Your task to perform on an android device: When is my next appointment? Image 0: 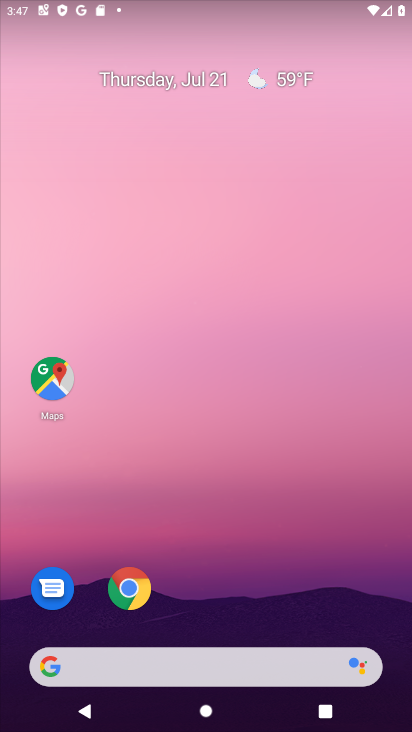
Step 0: drag from (231, 728) to (231, 268)
Your task to perform on an android device: When is my next appointment? Image 1: 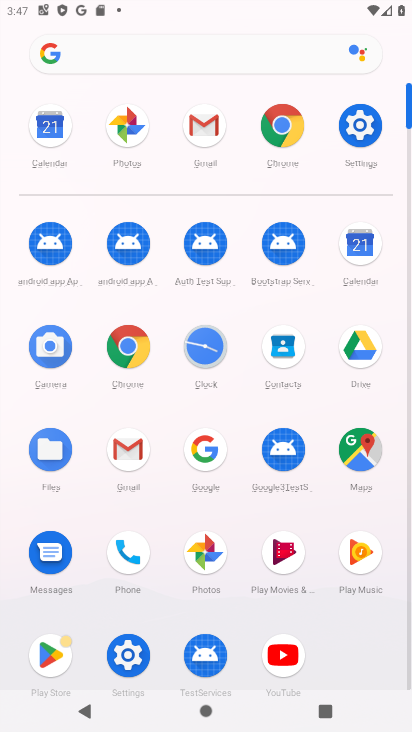
Step 1: click (359, 240)
Your task to perform on an android device: When is my next appointment? Image 2: 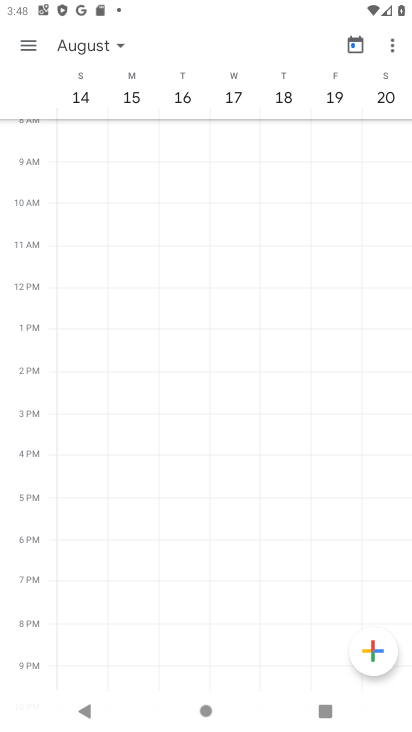
Step 2: click (121, 46)
Your task to perform on an android device: When is my next appointment? Image 3: 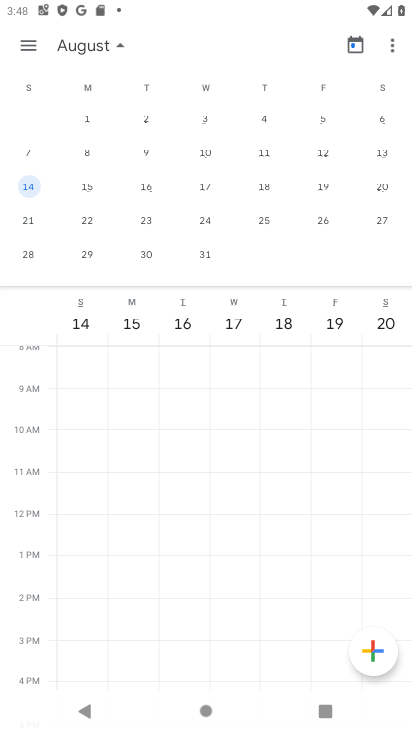
Step 3: drag from (87, 178) to (378, 190)
Your task to perform on an android device: When is my next appointment? Image 4: 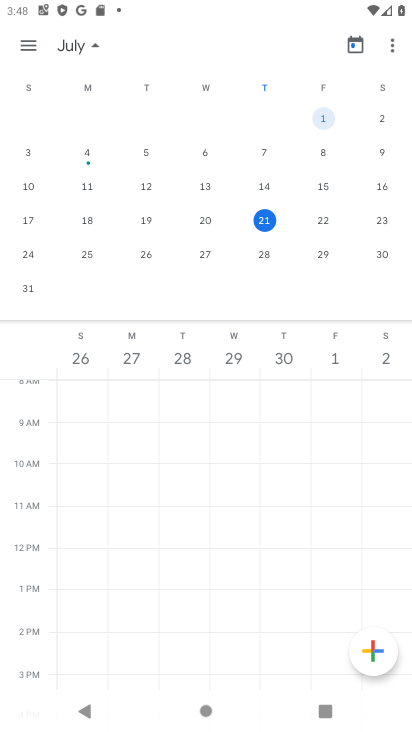
Step 4: click (324, 218)
Your task to perform on an android device: When is my next appointment? Image 5: 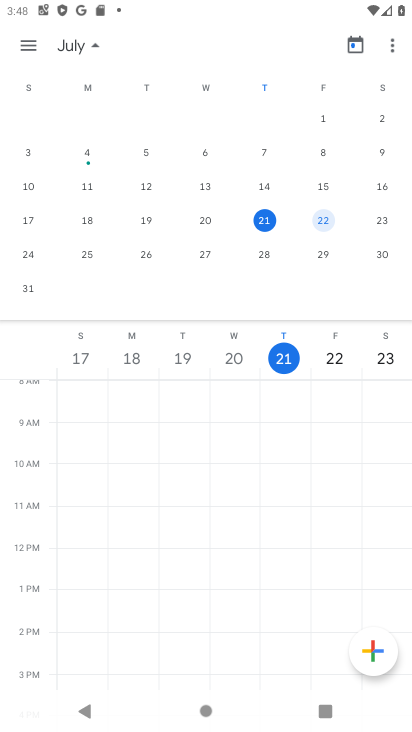
Step 5: click (328, 357)
Your task to perform on an android device: When is my next appointment? Image 6: 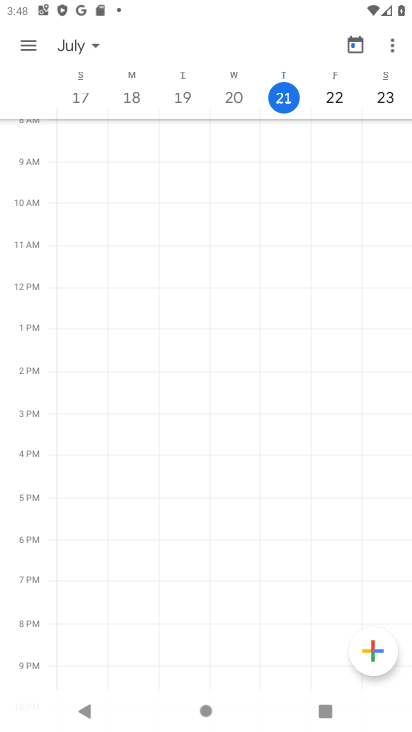
Step 6: click (333, 95)
Your task to perform on an android device: When is my next appointment? Image 7: 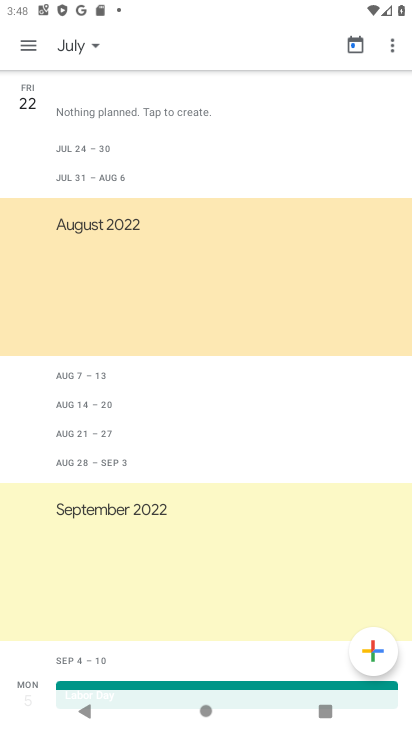
Step 7: task complete